Your task to perform on an android device: set the timer Image 0: 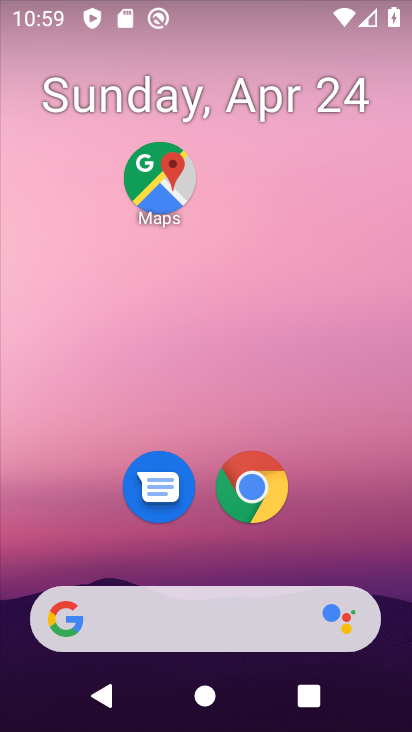
Step 0: drag from (84, 603) to (288, 259)
Your task to perform on an android device: set the timer Image 1: 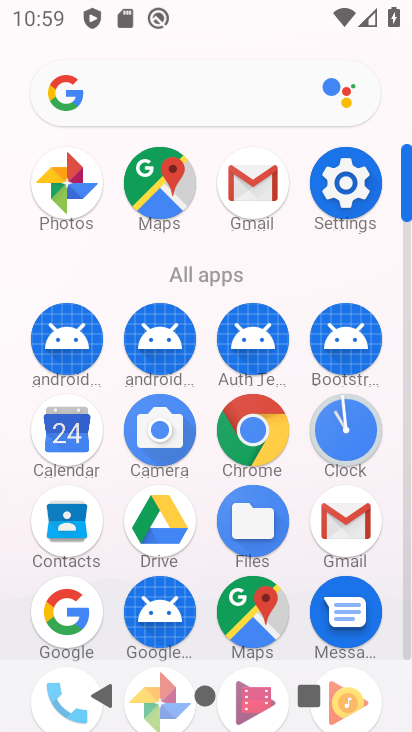
Step 1: click (346, 428)
Your task to perform on an android device: set the timer Image 2: 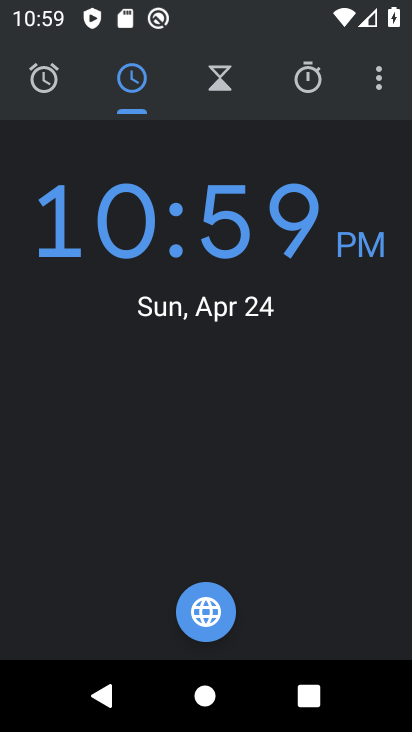
Step 2: click (314, 73)
Your task to perform on an android device: set the timer Image 3: 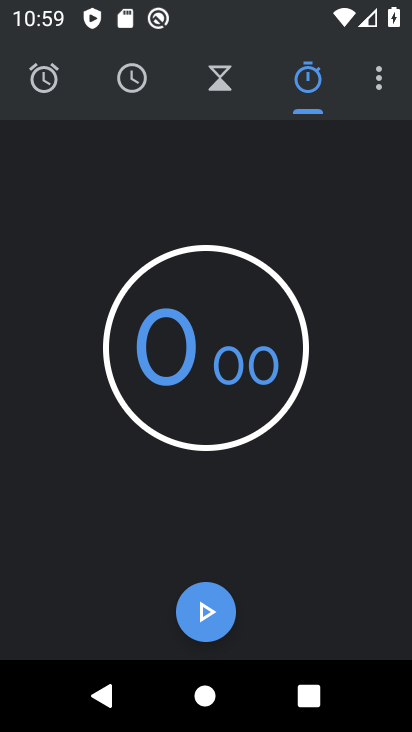
Step 3: click (198, 623)
Your task to perform on an android device: set the timer Image 4: 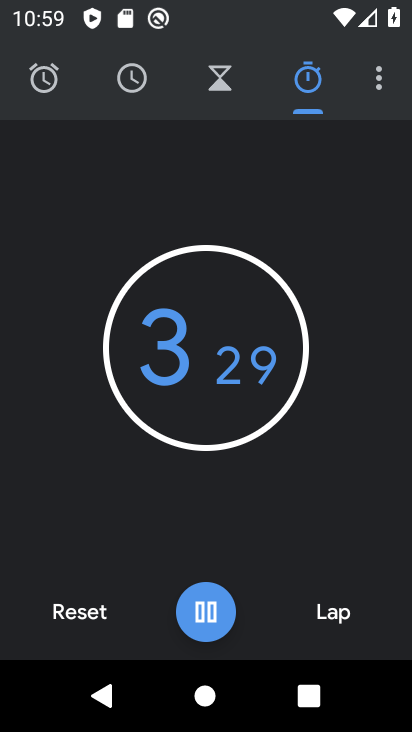
Step 4: click (225, 89)
Your task to perform on an android device: set the timer Image 5: 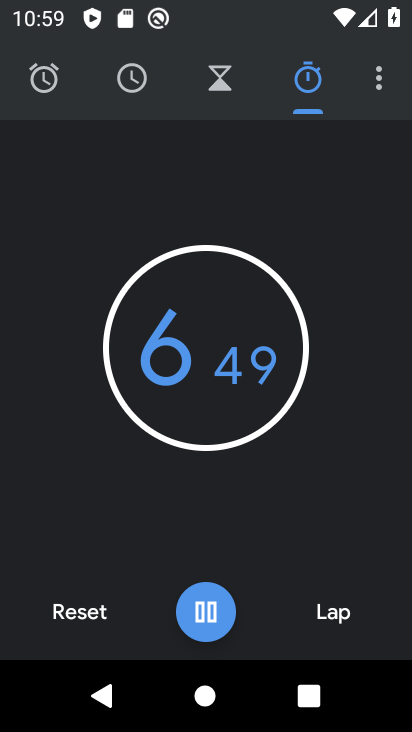
Step 5: click (225, 85)
Your task to perform on an android device: set the timer Image 6: 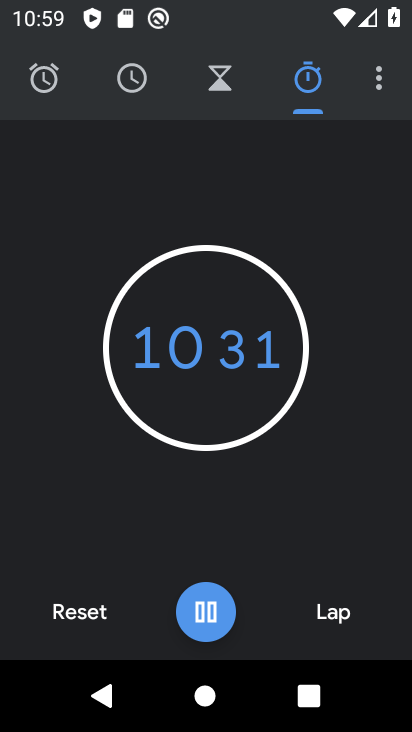
Step 6: click (76, 620)
Your task to perform on an android device: set the timer Image 7: 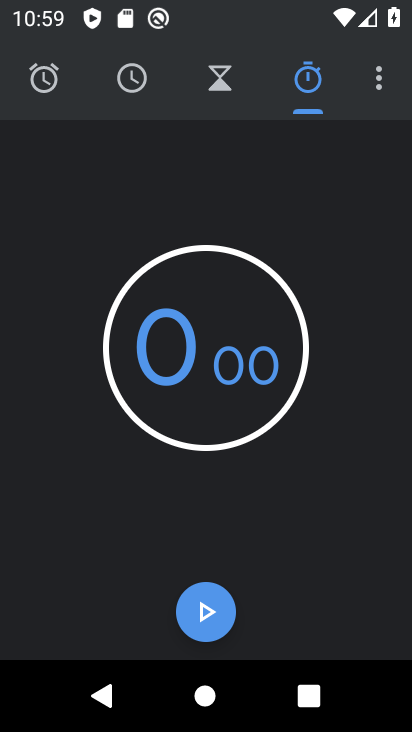
Step 7: click (225, 80)
Your task to perform on an android device: set the timer Image 8: 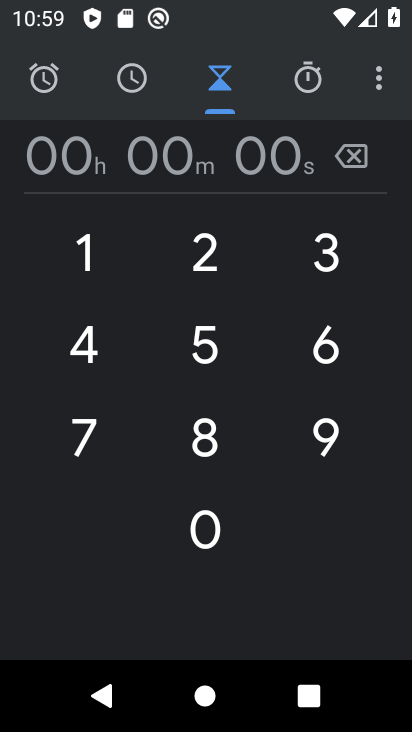
Step 8: click (191, 533)
Your task to perform on an android device: set the timer Image 9: 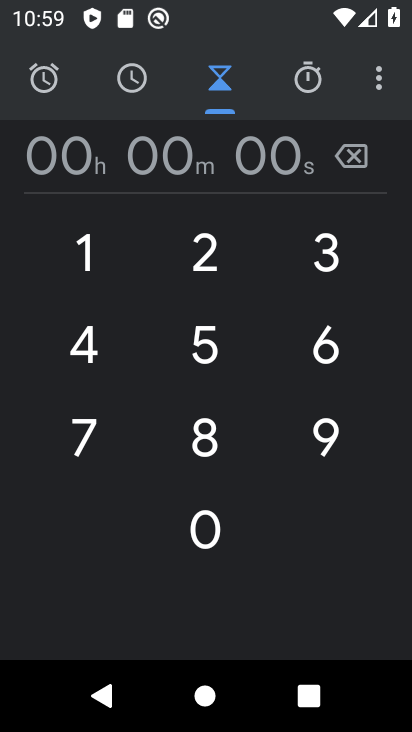
Step 9: click (198, 539)
Your task to perform on an android device: set the timer Image 10: 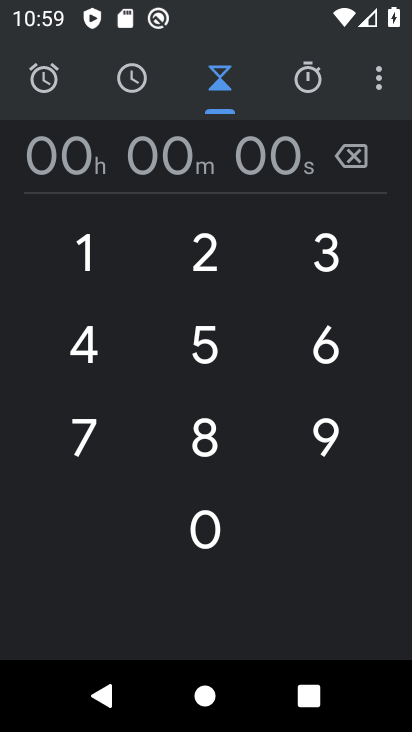
Step 10: click (199, 538)
Your task to perform on an android device: set the timer Image 11: 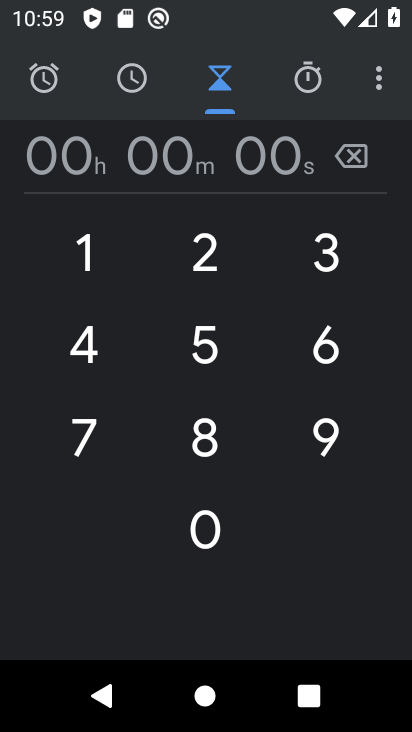
Step 11: click (199, 538)
Your task to perform on an android device: set the timer Image 12: 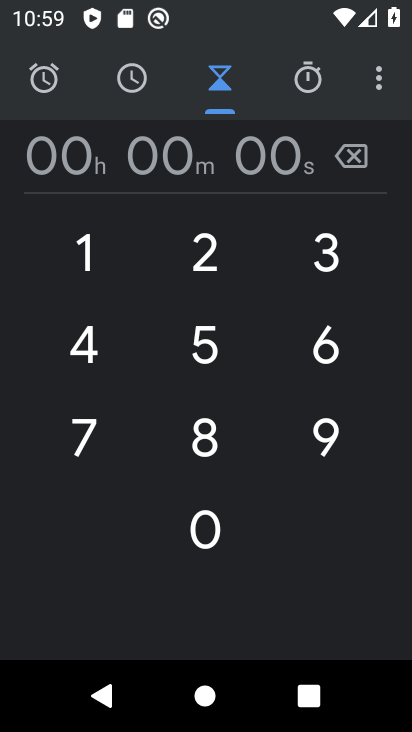
Step 12: click (196, 345)
Your task to perform on an android device: set the timer Image 13: 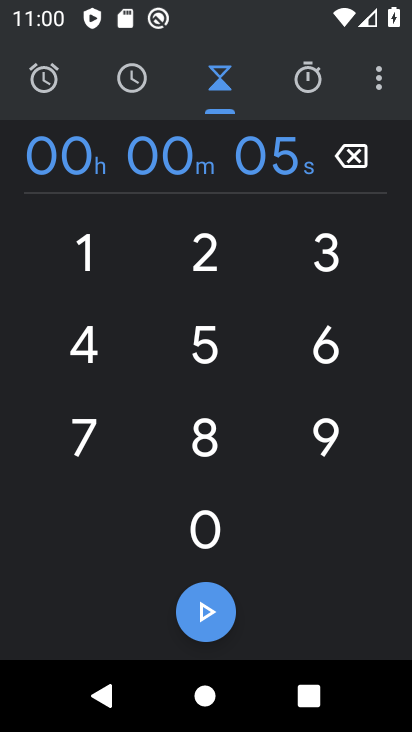
Step 13: click (196, 443)
Your task to perform on an android device: set the timer Image 14: 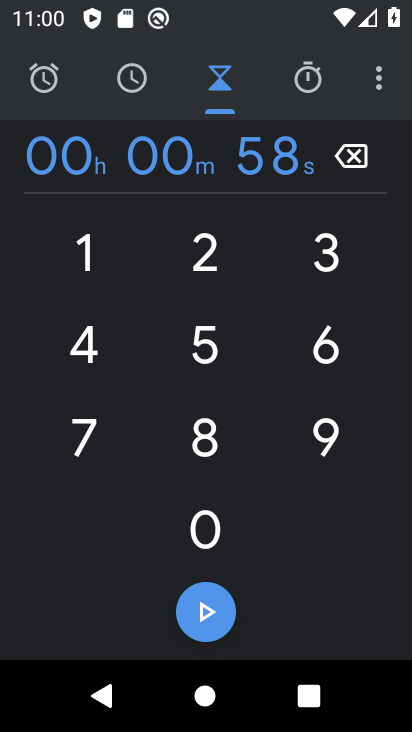
Step 14: click (195, 527)
Your task to perform on an android device: set the timer Image 15: 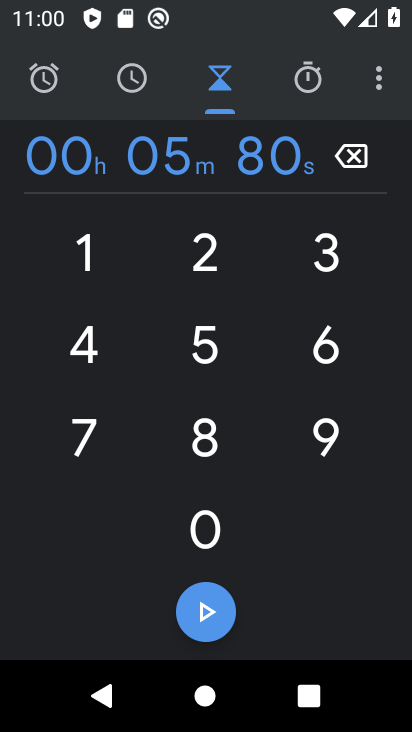
Step 15: click (195, 527)
Your task to perform on an android device: set the timer Image 16: 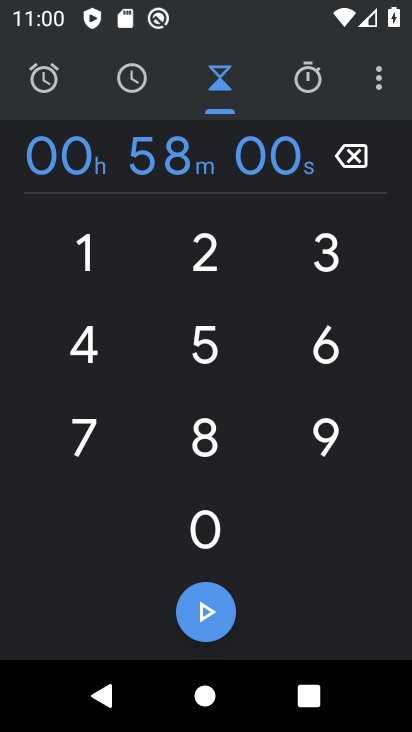
Step 16: click (195, 527)
Your task to perform on an android device: set the timer Image 17: 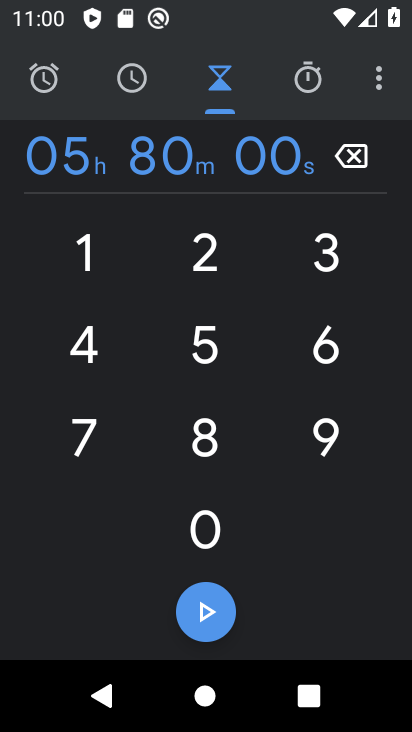
Step 17: click (209, 616)
Your task to perform on an android device: set the timer Image 18: 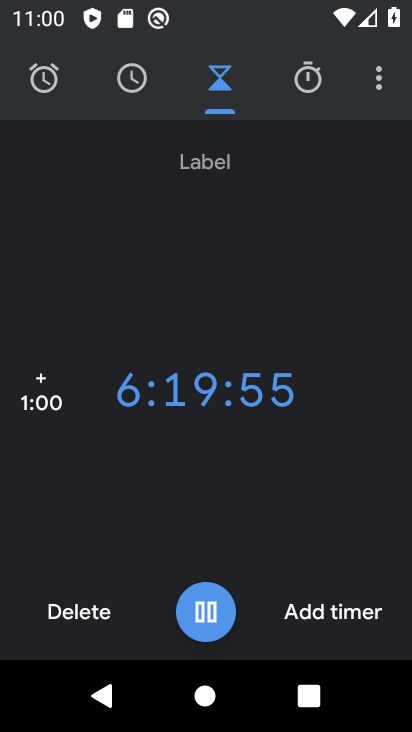
Step 18: task complete